Your task to perform on an android device: Go to eBay Image 0: 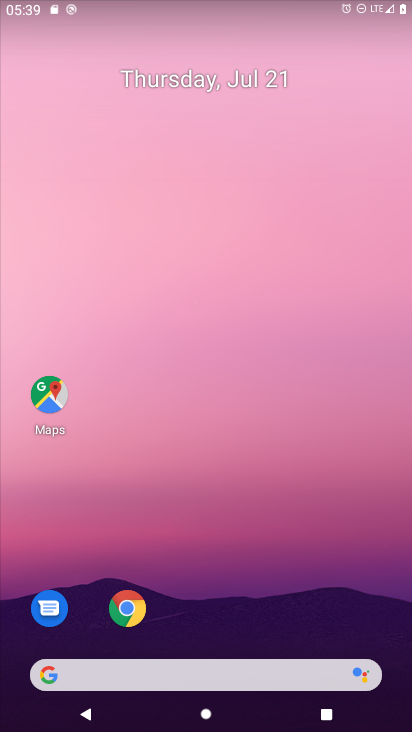
Step 0: drag from (293, 663) to (301, 82)
Your task to perform on an android device: Go to eBay Image 1: 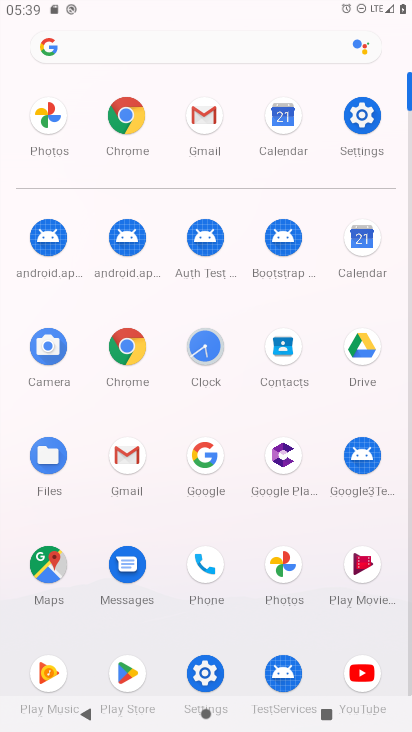
Step 1: click (136, 347)
Your task to perform on an android device: Go to eBay Image 2: 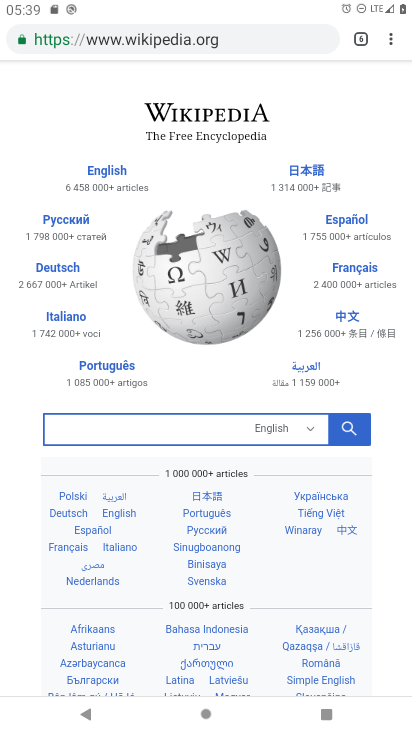
Step 2: drag from (393, 37) to (322, 64)
Your task to perform on an android device: Go to eBay Image 3: 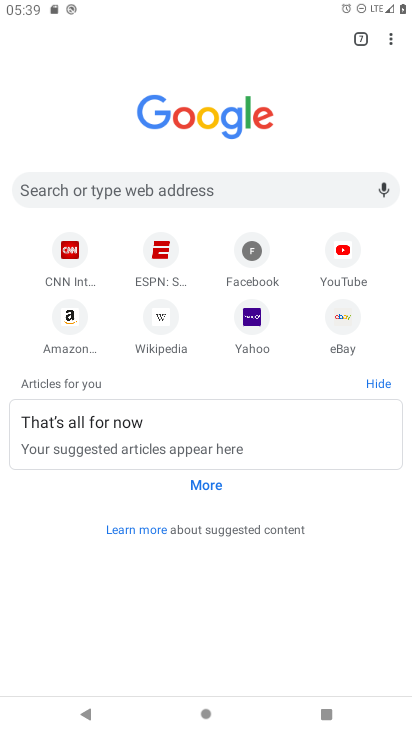
Step 3: click (337, 315)
Your task to perform on an android device: Go to eBay Image 4: 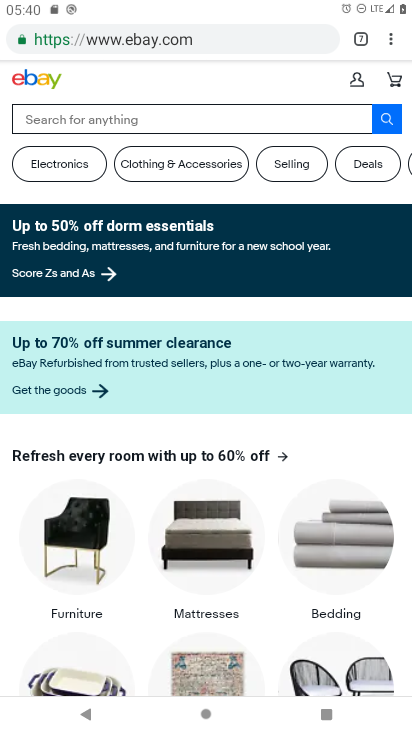
Step 4: task complete